Your task to perform on an android device: Show me the alarms in the clock app Image 0: 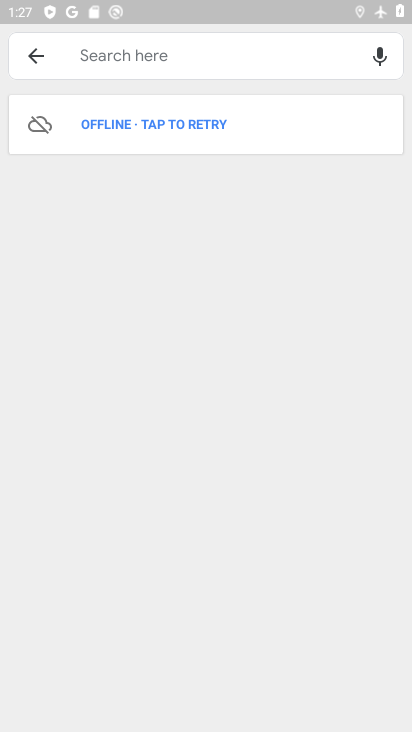
Step 0: press home button
Your task to perform on an android device: Show me the alarms in the clock app Image 1: 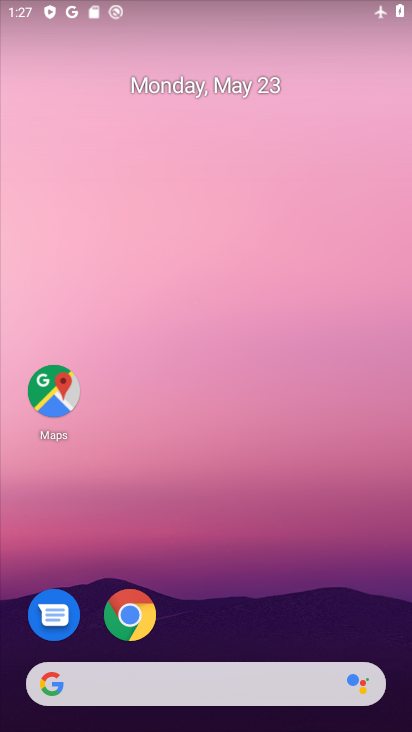
Step 1: drag from (206, 641) to (167, 190)
Your task to perform on an android device: Show me the alarms in the clock app Image 2: 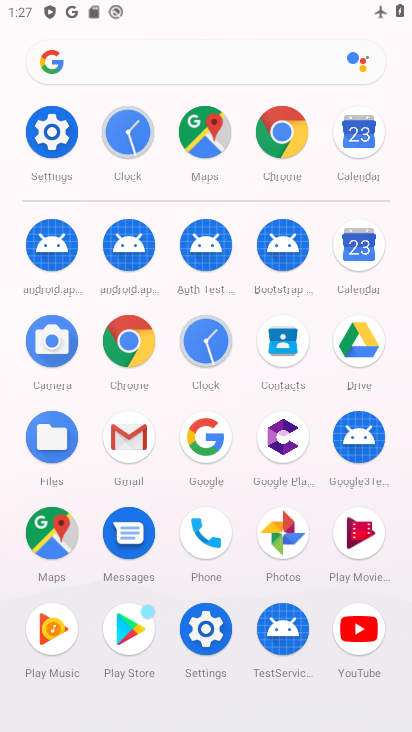
Step 2: click (210, 341)
Your task to perform on an android device: Show me the alarms in the clock app Image 3: 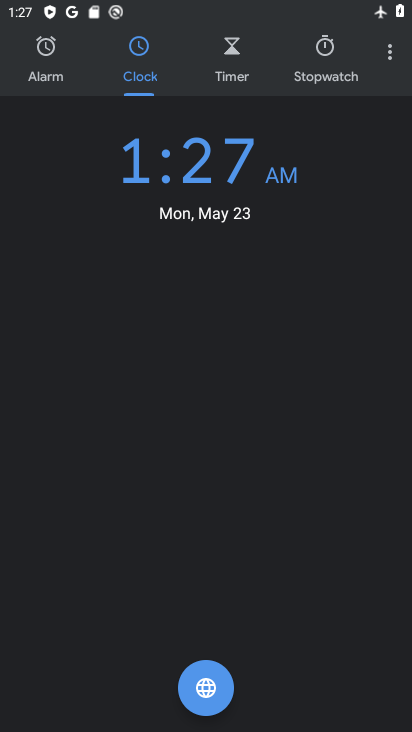
Step 3: click (25, 53)
Your task to perform on an android device: Show me the alarms in the clock app Image 4: 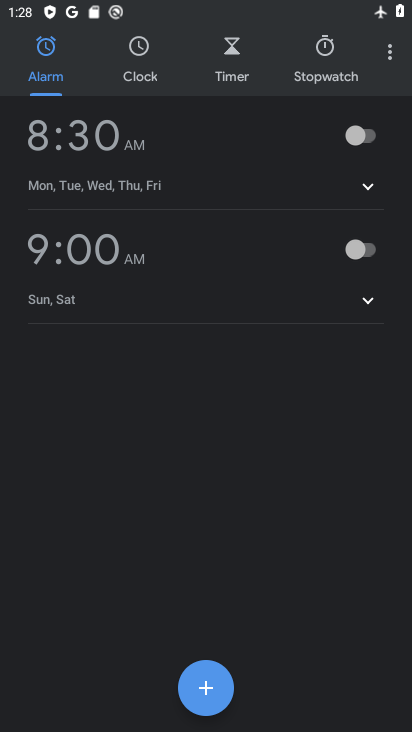
Step 4: task complete